Your task to perform on an android device: change the clock display to analog Image 0: 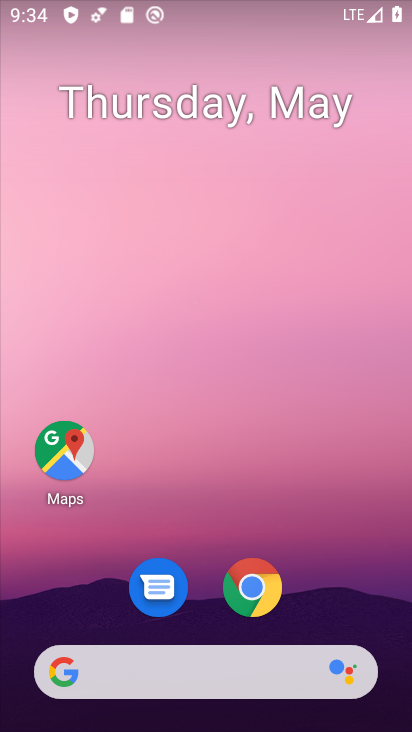
Step 0: drag from (346, 634) to (339, 6)
Your task to perform on an android device: change the clock display to analog Image 1: 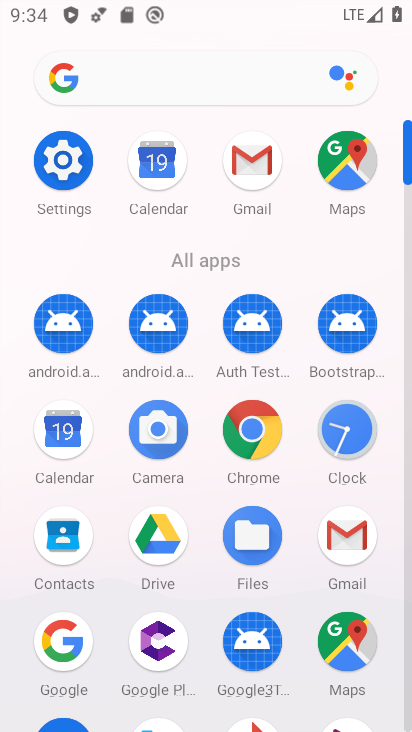
Step 1: click (341, 426)
Your task to perform on an android device: change the clock display to analog Image 2: 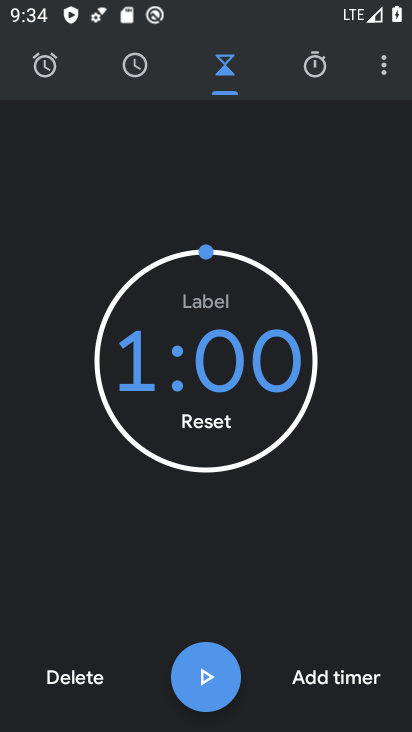
Step 2: click (386, 67)
Your task to perform on an android device: change the clock display to analog Image 3: 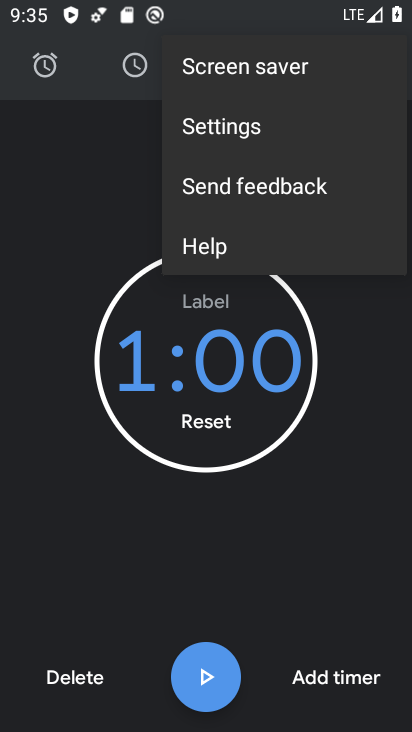
Step 3: click (227, 127)
Your task to perform on an android device: change the clock display to analog Image 4: 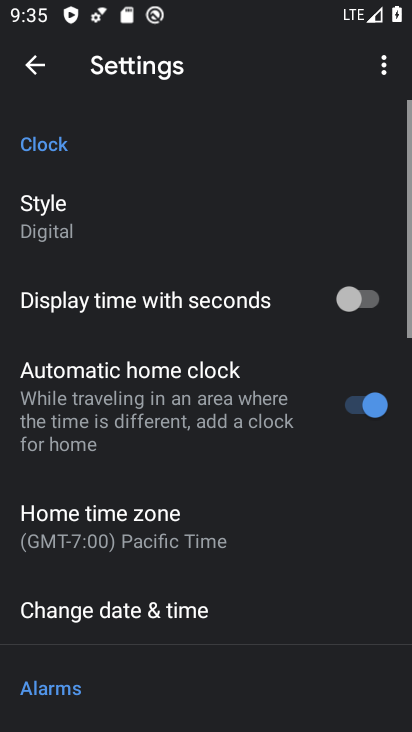
Step 4: click (48, 232)
Your task to perform on an android device: change the clock display to analog Image 5: 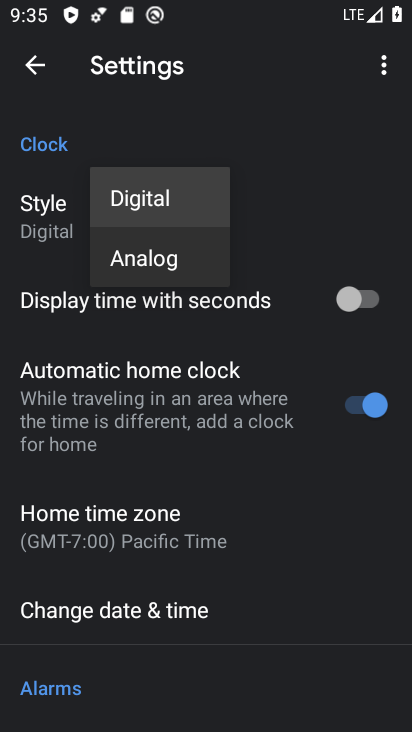
Step 5: click (131, 269)
Your task to perform on an android device: change the clock display to analog Image 6: 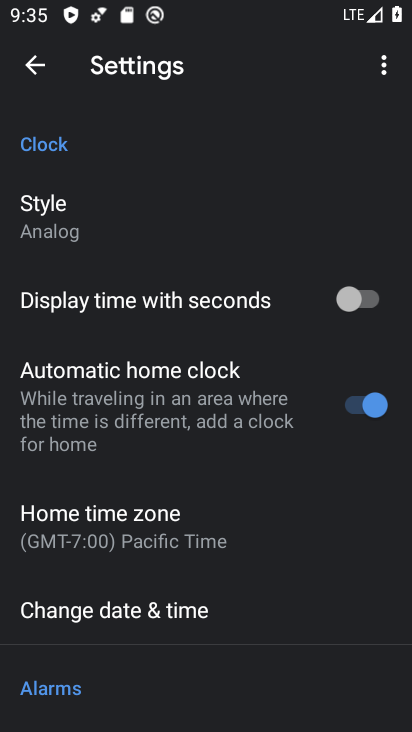
Step 6: task complete